Your task to perform on an android device: choose inbox layout in the gmail app Image 0: 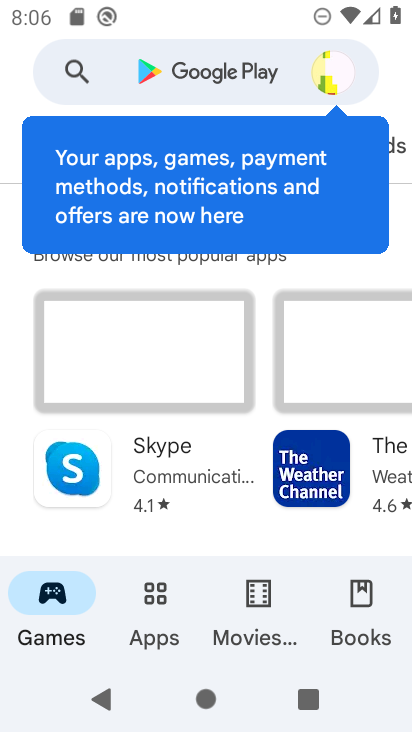
Step 0: press back button
Your task to perform on an android device: choose inbox layout in the gmail app Image 1: 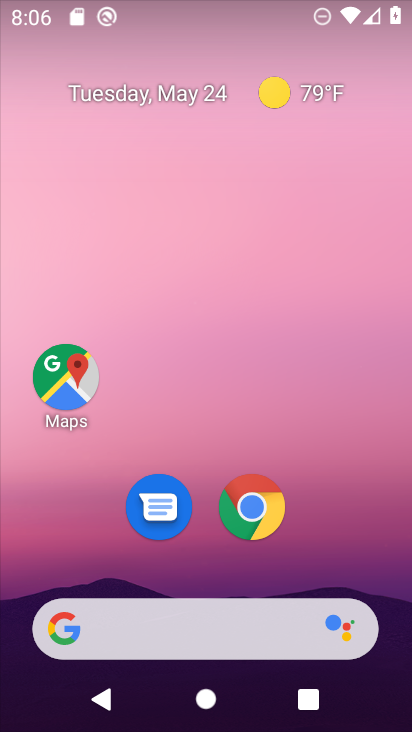
Step 1: drag from (331, 551) to (236, 27)
Your task to perform on an android device: choose inbox layout in the gmail app Image 2: 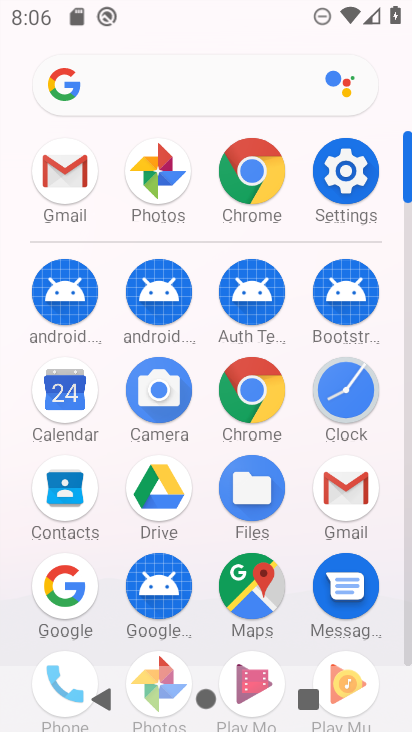
Step 2: click (341, 486)
Your task to perform on an android device: choose inbox layout in the gmail app Image 3: 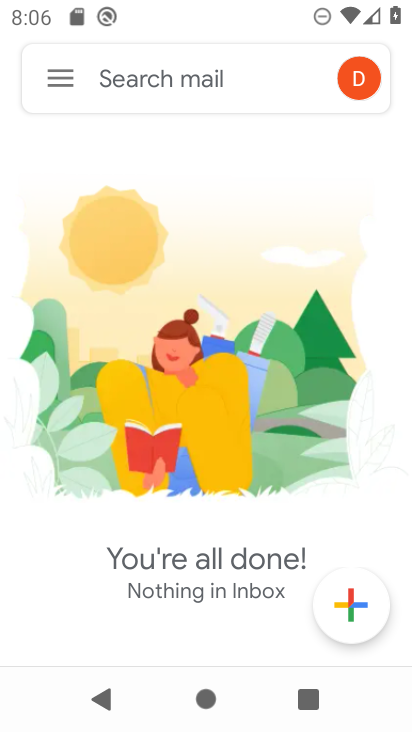
Step 3: click (53, 68)
Your task to perform on an android device: choose inbox layout in the gmail app Image 4: 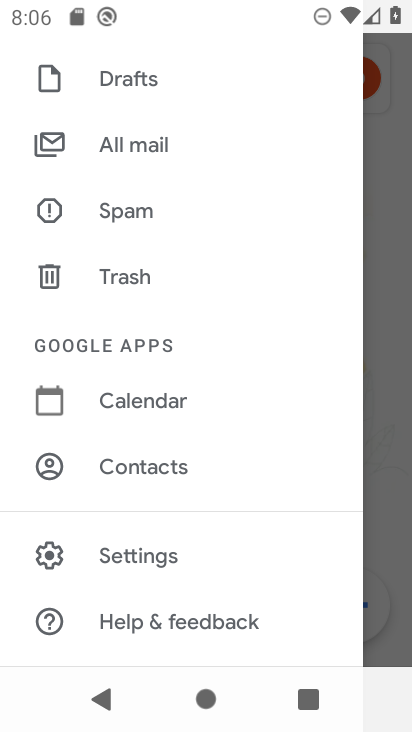
Step 4: click (181, 552)
Your task to perform on an android device: choose inbox layout in the gmail app Image 5: 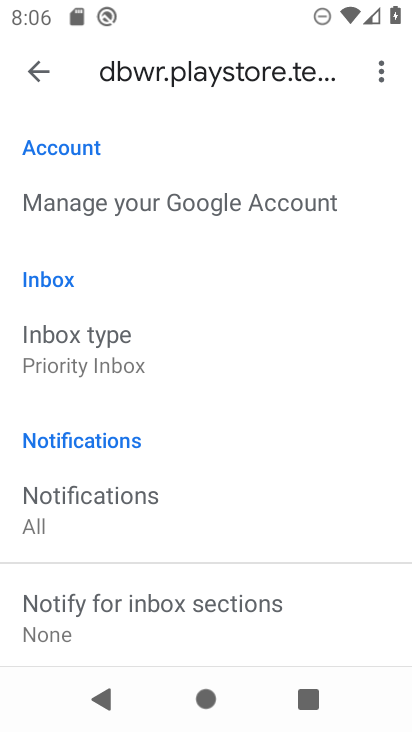
Step 5: click (128, 333)
Your task to perform on an android device: choose inbox layout in the gmail app Image 6: 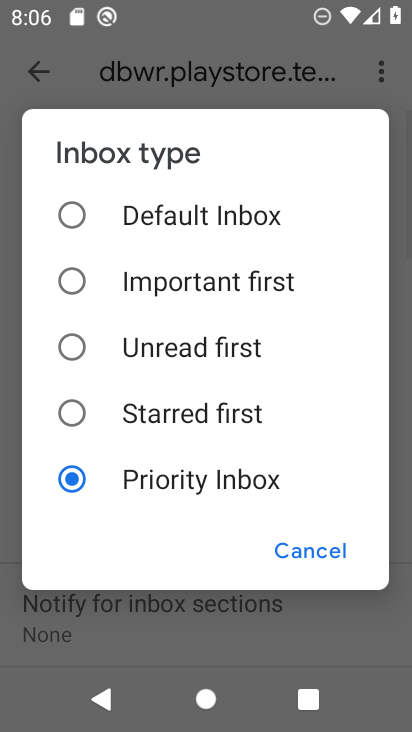
Step 6: click (185, 228)
Your task to perform on an android device: choose inbox layout in the gmail app Image 7: 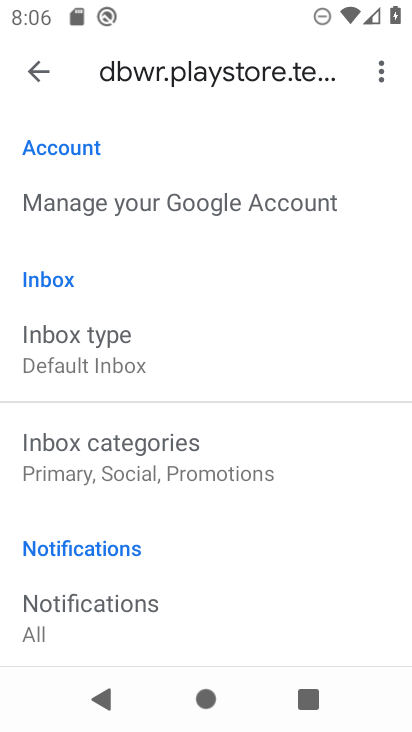
Step 7: task complete